Your task to perform on an android device: toggle pop-ups in chrome Image 0: 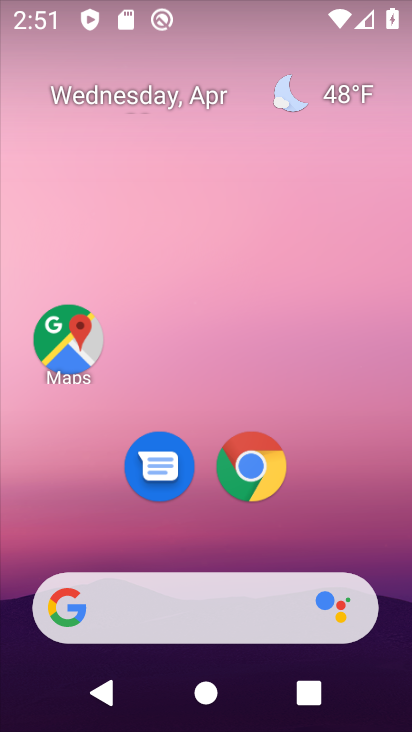
Step 0: click (258, 485)
Your task to perform on an android device: toggle pop-ups in chrome Image 1: 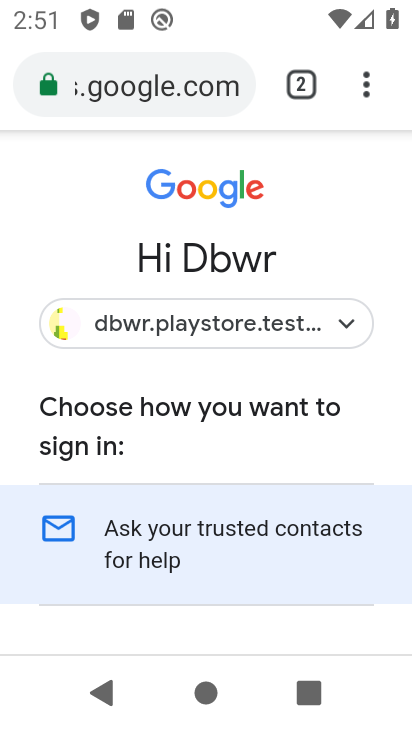
Step 1: click (362, 75)
Your task to perform on an android device: toggle pop-ups in chrome Image 2: 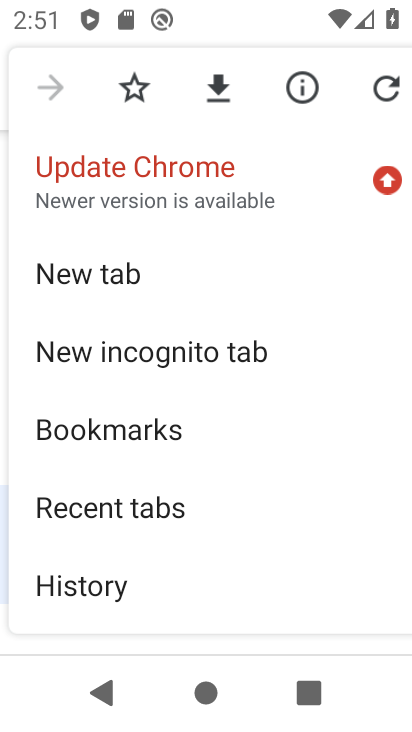
Step 2: drag from (225, 510) to (249, 279)
Your task to perform on an android device: toggle pop-ups in chrome Image 3: 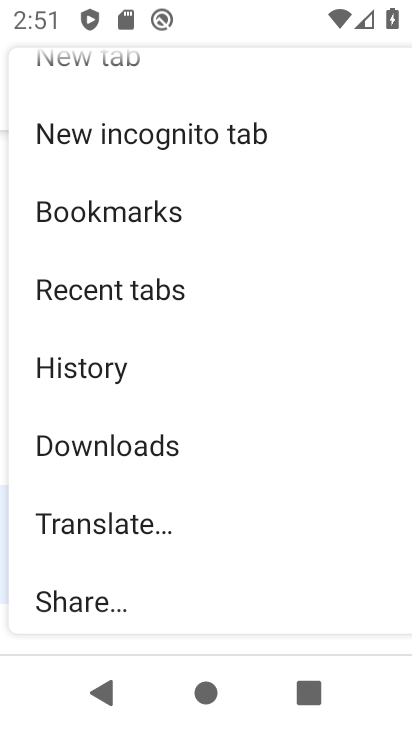
Step 3: drag from (247, 506) to (251, 152)
Your task to perform on an android device: toggle pop-ups in chrome Image 4: 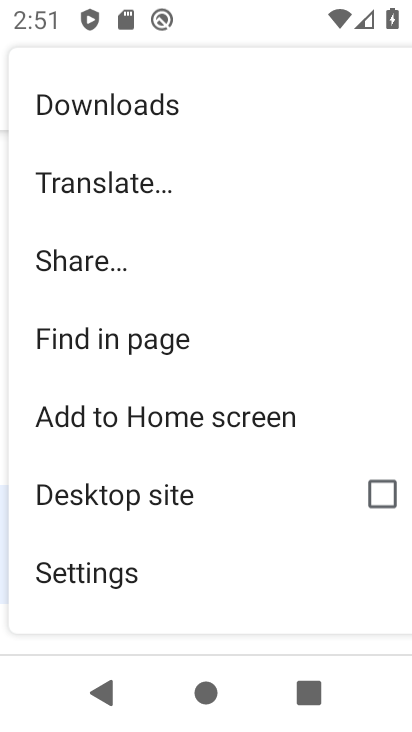
Step 4: click (151, 563)
Your task to perform on an android device: toggle pop-ups in chrome Image 5: 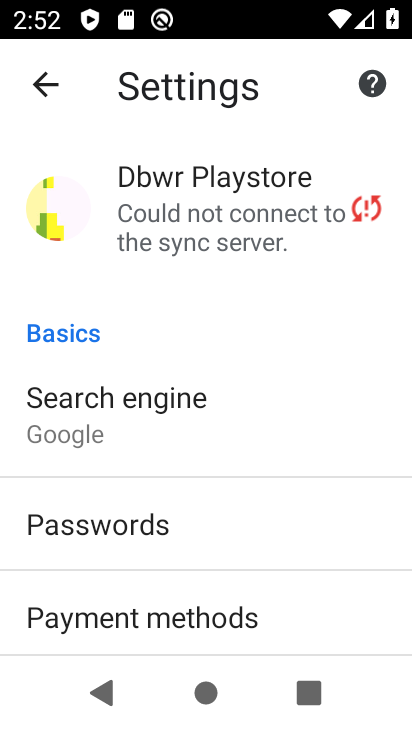
Step 5: drag from (151, 563) to (165, 106)
Your task to perform on an android device: toggle pop-ups in chrome Image 6: 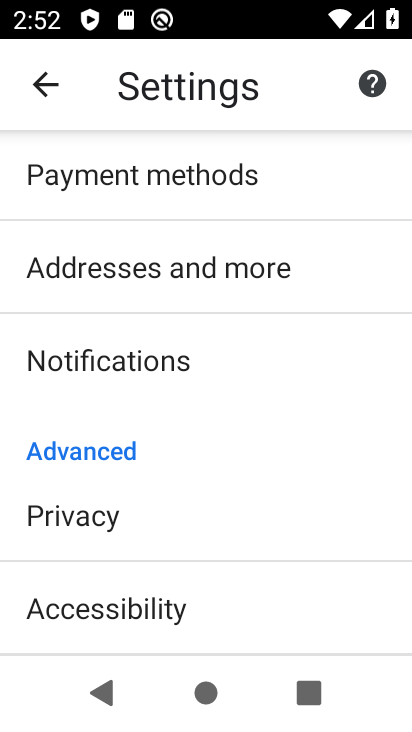
Step 6: drag from (212, 472) to (217, 186)
Your task to perform on an android device: toggle pop-ups in chrome Image 7: 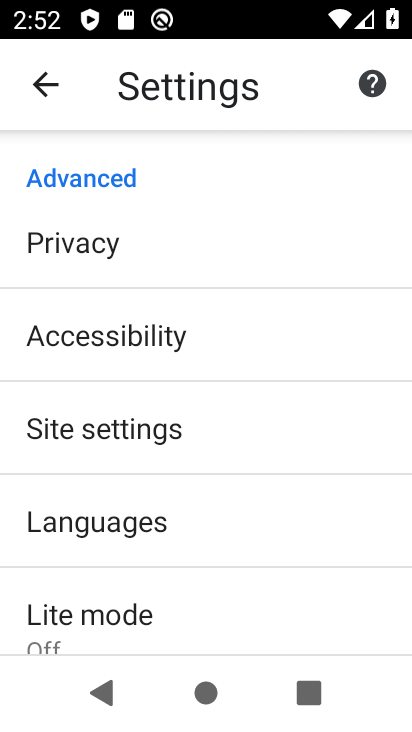
Step 7: click (185, 425)
Your task to perform on an android device: toggle pop-ups in chrome Image 8: 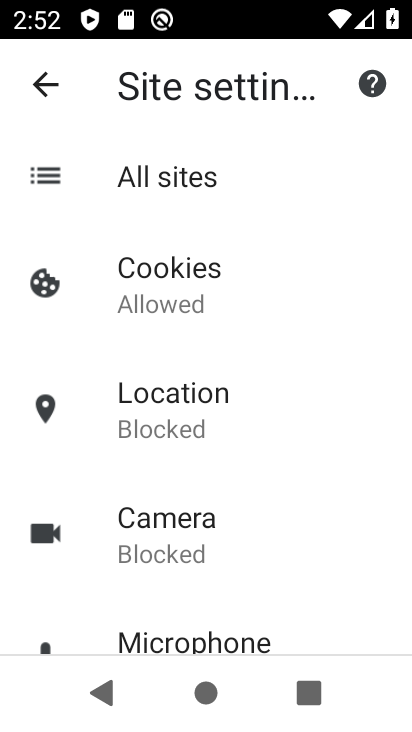
Step 8: drag from (236, 549) to (241, 254)
Your task to perform on an android device: toggle pop-ups in chrome Image 9: 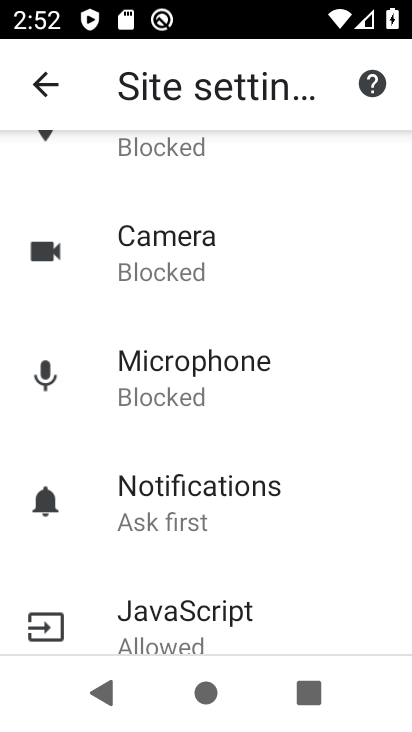
Step 9: drag from (240, 529) to (267, 163)
Your task to perform on an android device: toggle pop-ups in chrome Image 10: 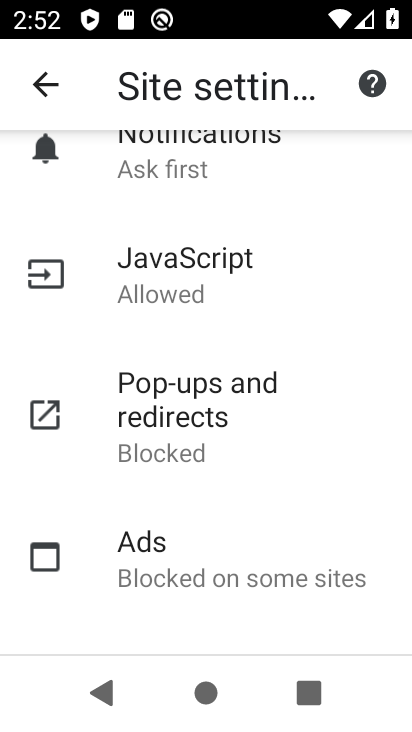
Step 10: click (238, 410)
Your task to perform on an android device: toggle pop-ups in chrome Image 11: 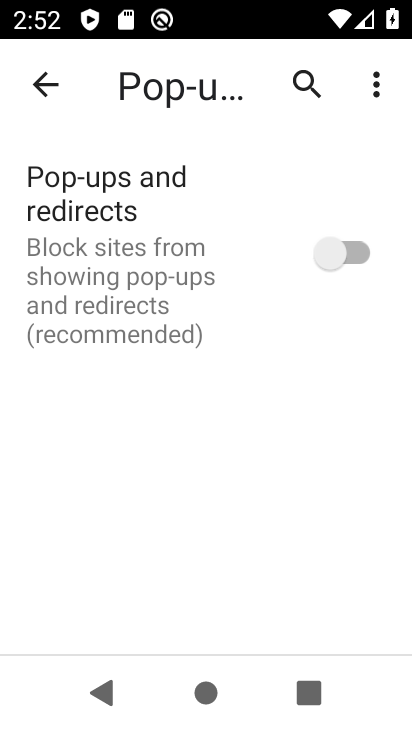
Step 11: click (342, 249)
Your task to perform on an android device: toggle pop-ups in chrome Image 12: 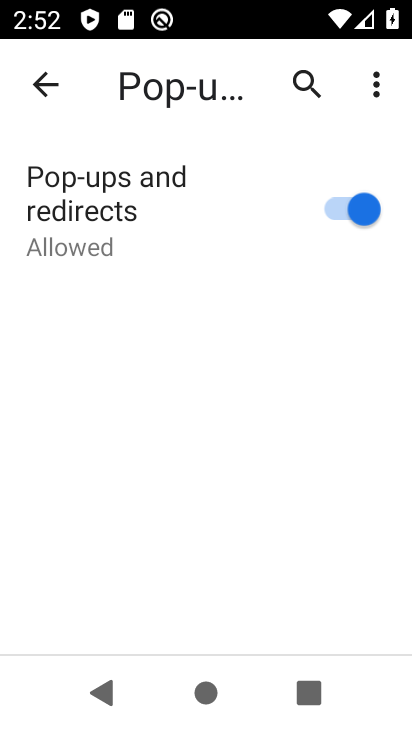
Step 12: task complete